Your task to perform on an android device: open chrome and create a bookmark for the current page Image 0: 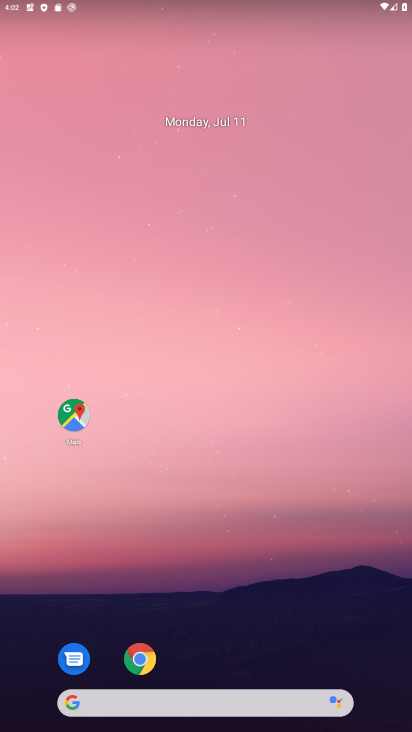
Step 0: click (146, 658)
Your task to perform on an android device: open chrome and create a bookmark for the current page Image 1: 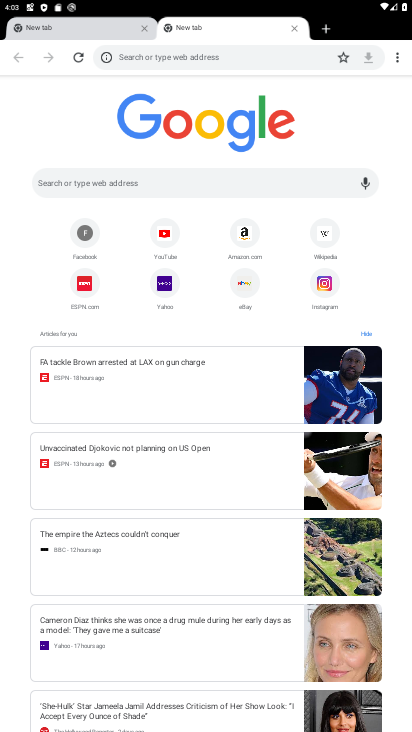
Step 1: click (345, 56)
Your task to perform on an android device: open chrome and create a bookmark for the current page Image 2: 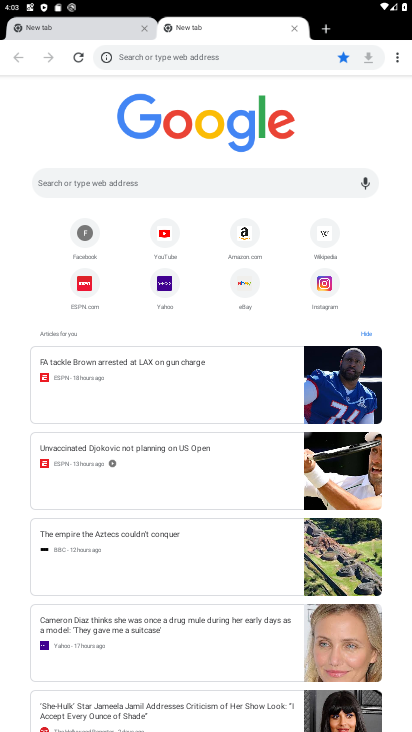
Step 2: task complete